Your task to perform on an android device: find which apps use the phone's location Image 0: 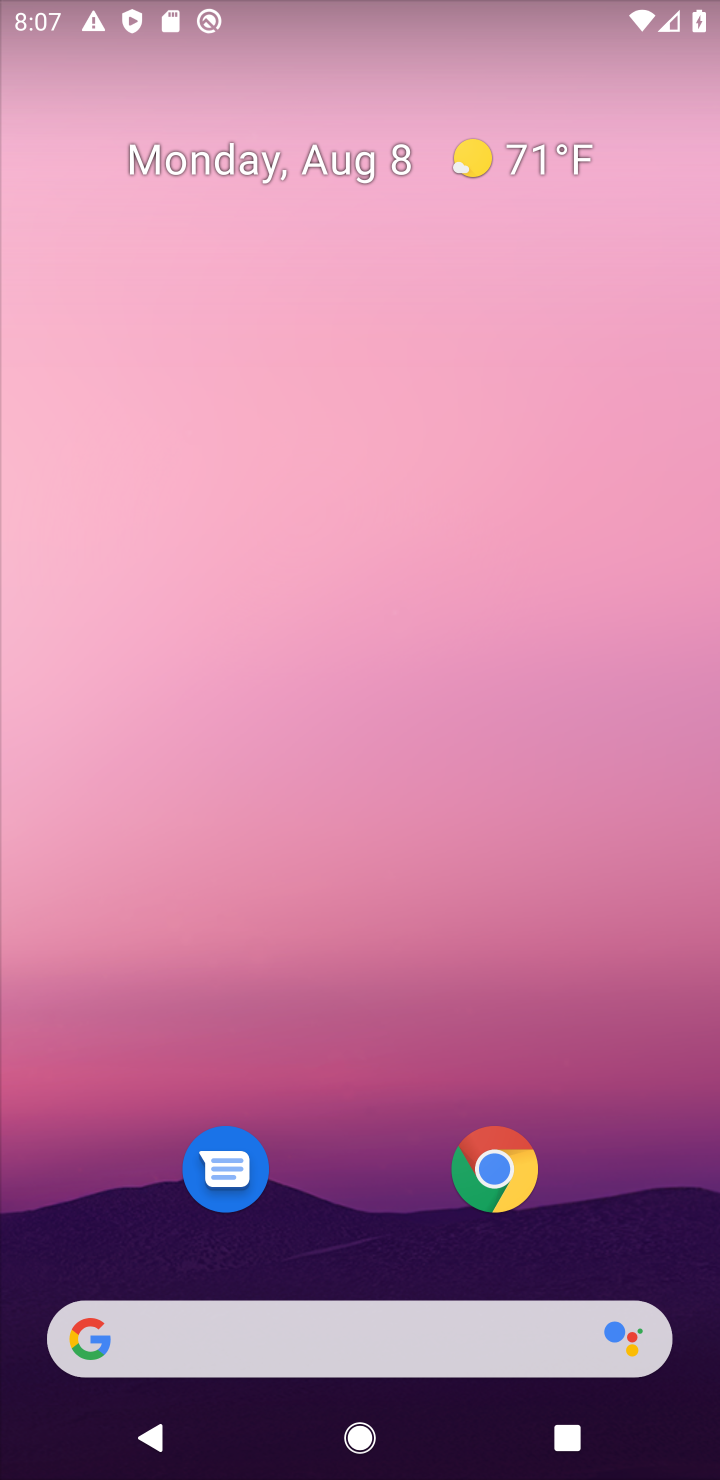
Step 0: drag from (345, 1305) to (614, 27)
Your task to perform on an android device: find which apps use the phone's location Image 1: 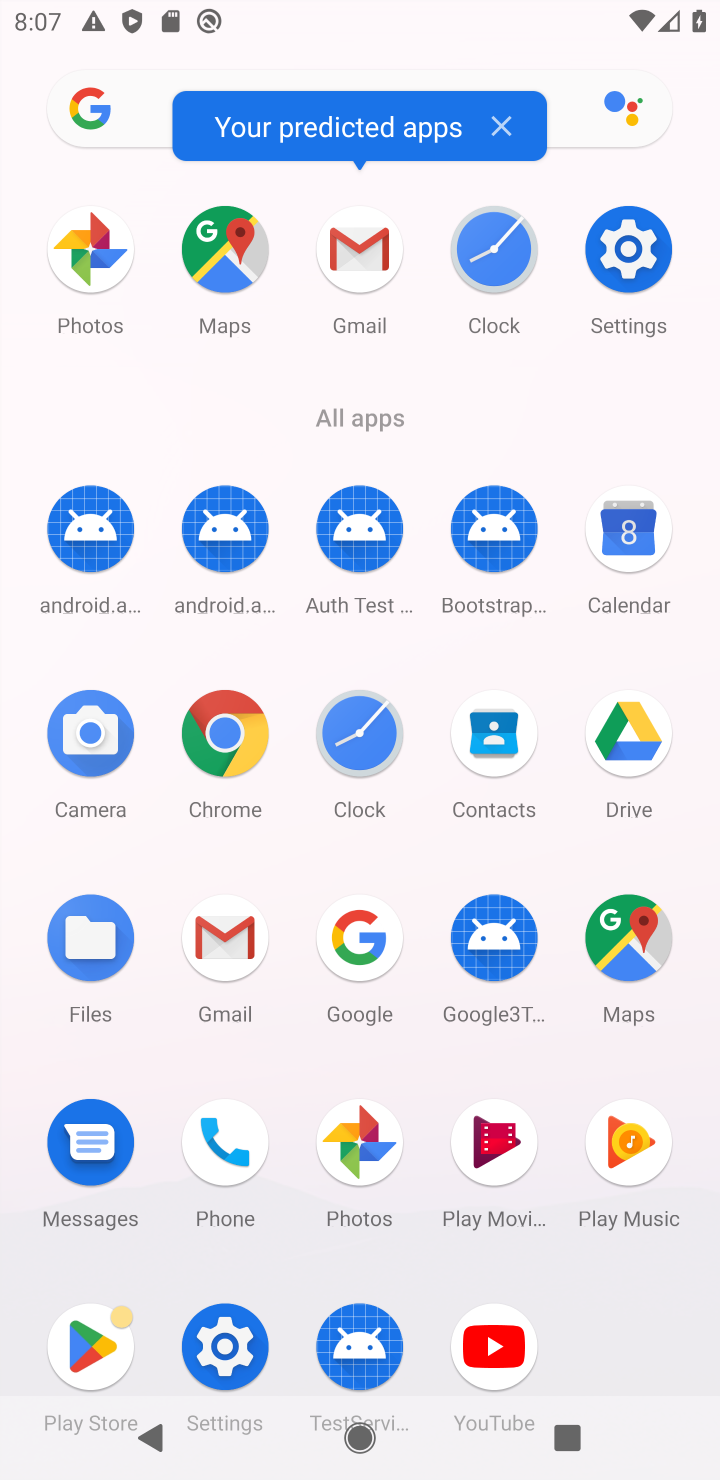
Step 1: click (216, 1338)
Your task to perform on an android device: find which apps use the phone's location Image 2: 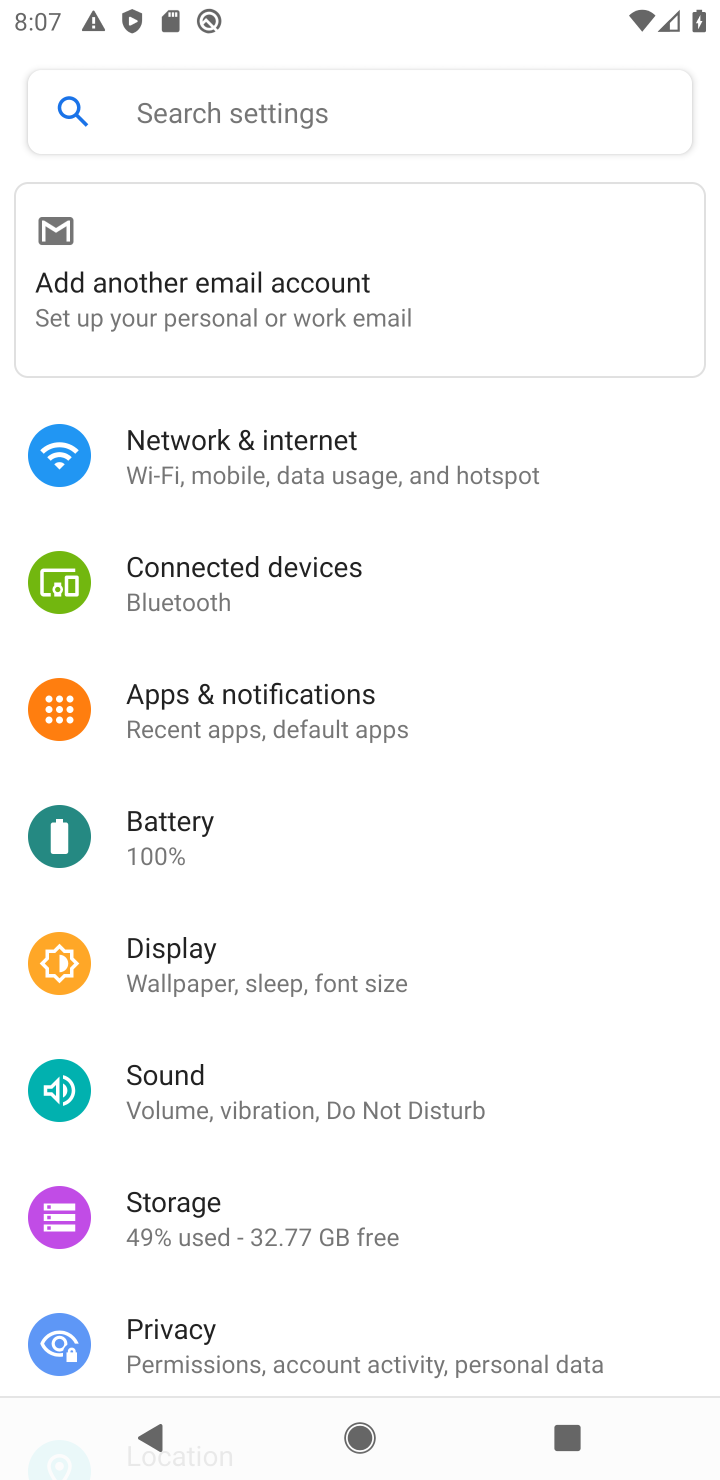
Step 2: drag from (256, 1285) to (497, 457)
Your task to perform on an android device: find which apps use the phone's location Image 3: 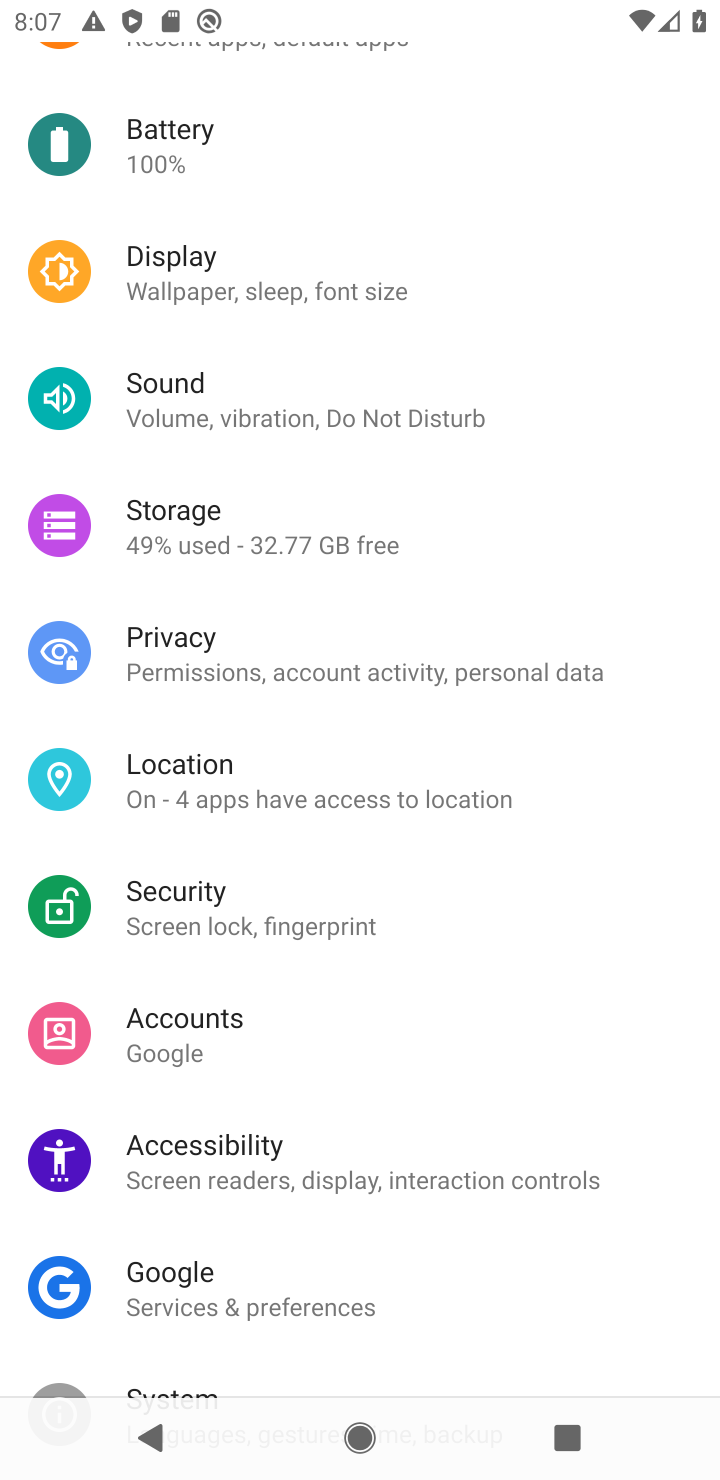
Step 3: click (281, 786)
Your task to perform on an android device: find which apps use the phone's location Image 4: 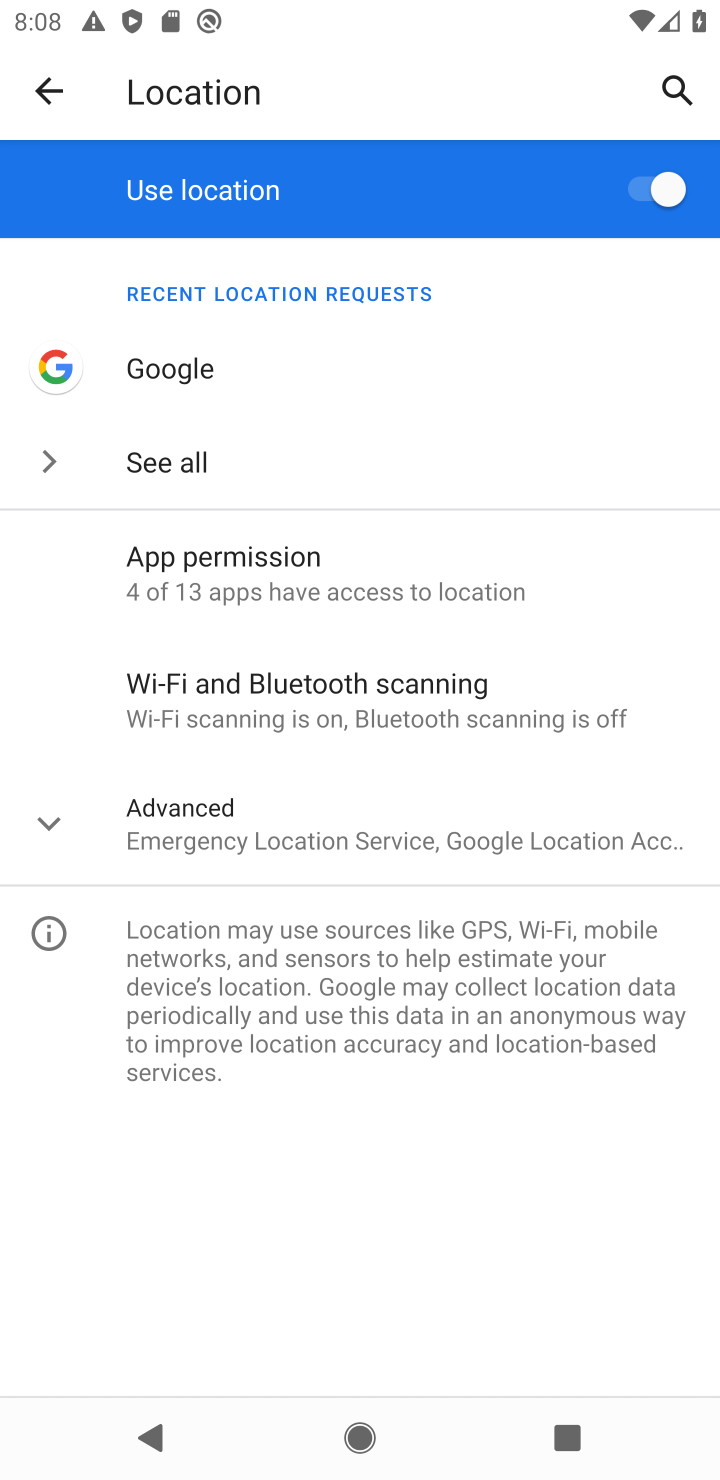
Step 4: click (316, 601)
Your task to perform on an android device: find which apps use the phone's location Image 5: 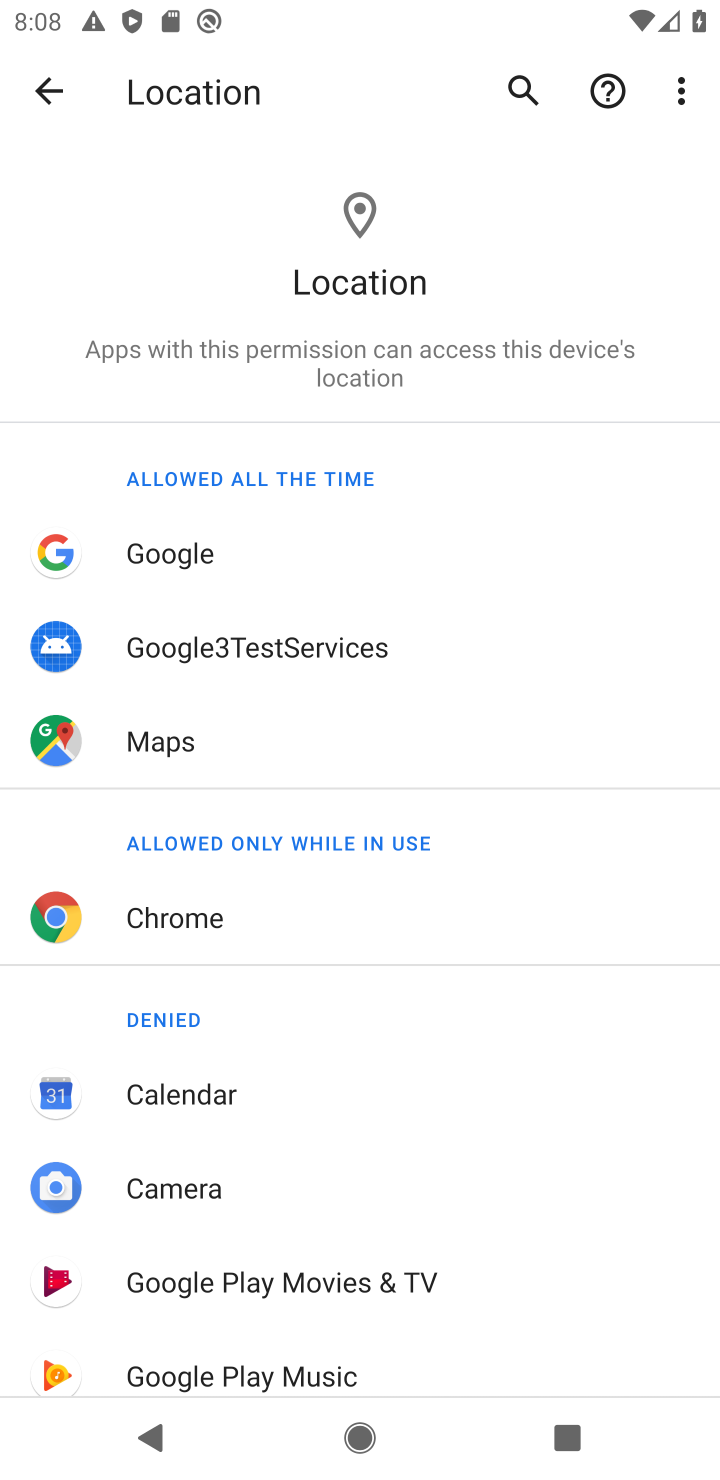
Step 5: task complete